Your task to perform on an android device: toggle translation in the chrome app Image 0: 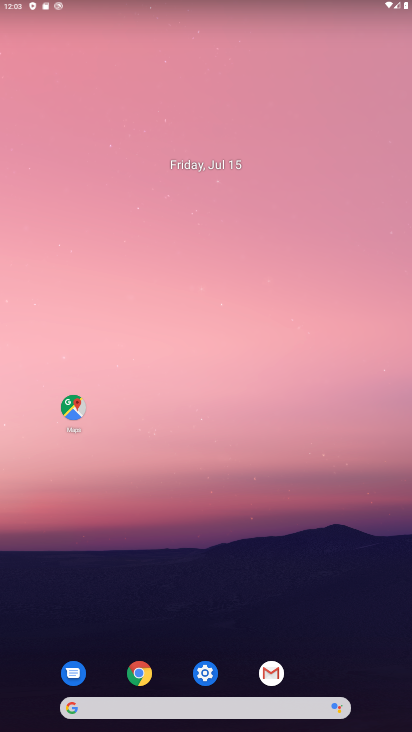
Step 0: press home button
Your task to perform on an android device: toggle translation in the chrome app Image 1: 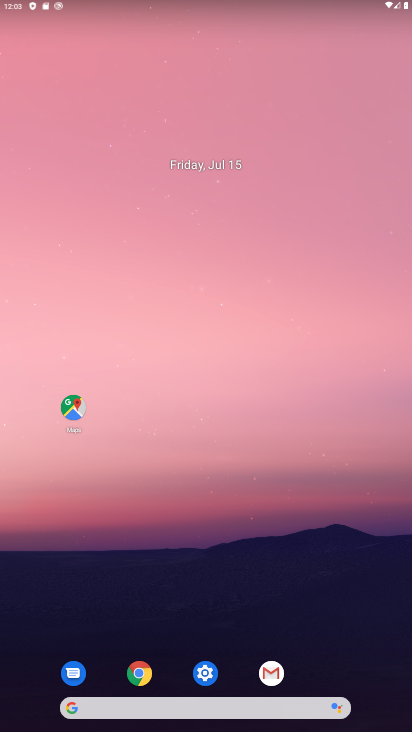
Step 1: click (144, 671)
Your task to perform on an android device: toggle translation in the chrome app Image 2: 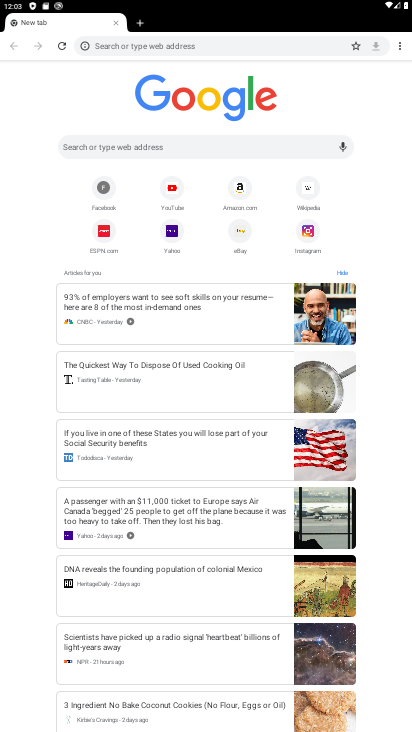
Step 2: click (402, 46)
Your task to perform on an android device: toggle translation in the chrome app Image 3: 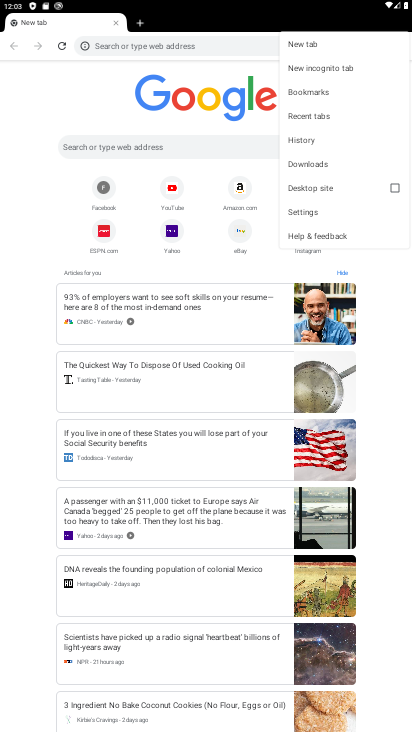
Step 3: click (303, 211)
Your task to perform on an android device: toggle translation in the chrome app Image 4: 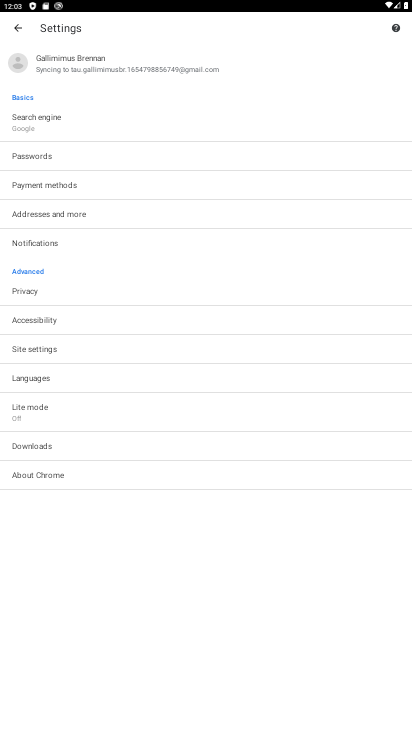
Step 4: click (50, 376)
Your task to perform on an android device: toggle translation in the chrome app Image 5: 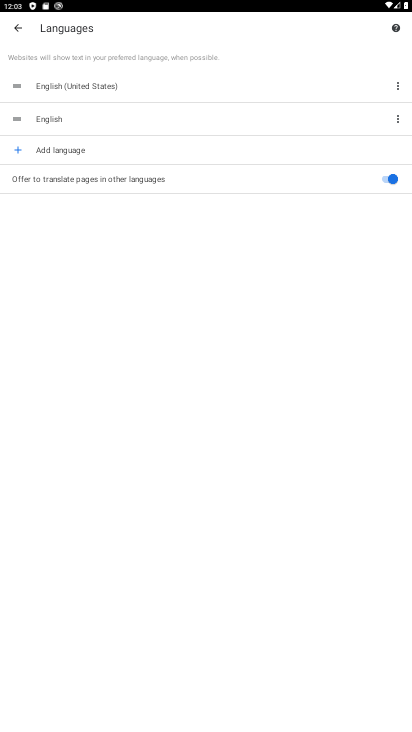
Step 5: click (170, 175)
Your task to perform on an android device: toggle translation in the chrome app Image 6: 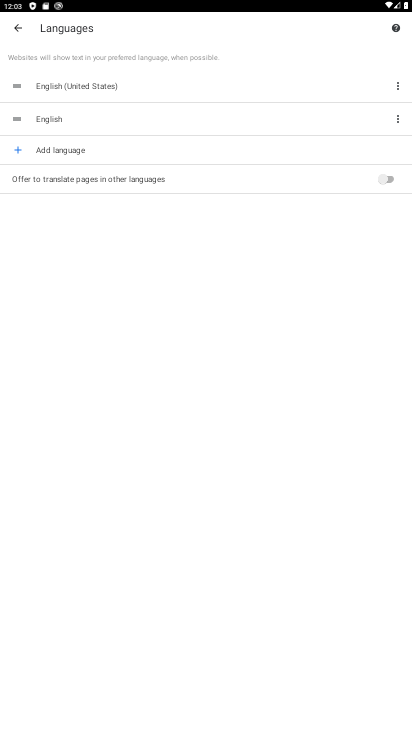
Step 6: click (170, 175)
Your task to perform on an android device: toggle translation in the chrome app Image 7: 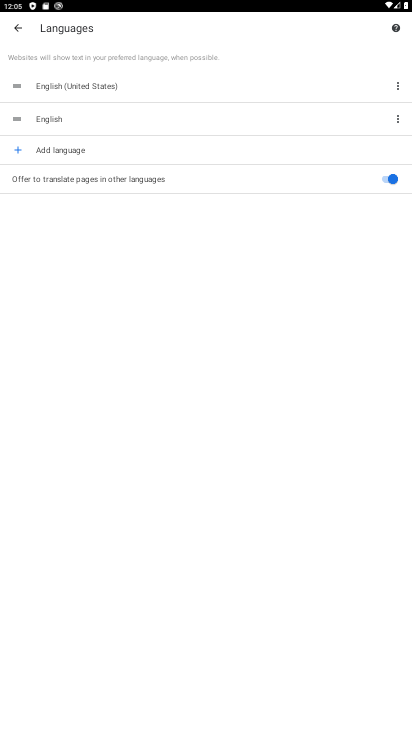
Step 7: task complete